Your task to perform on an android device: turn on the 12-hour format for clock Image 0: 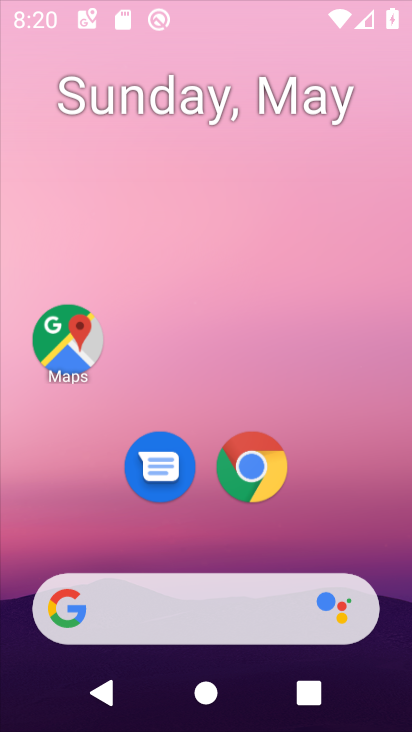
Step 0: click (327, 135)
Your task to perform on an android device: turn on the 12-hour format for clock Image 1: 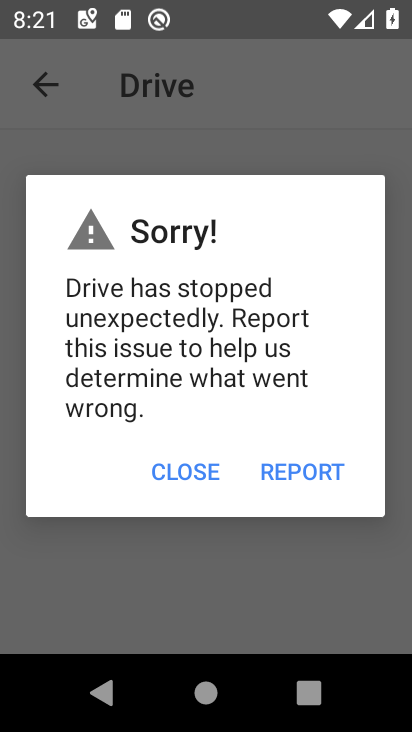
Step 1: click (213, 476)
Your task to perform on an android device: turn on the 12-hour format for clock Image 2: 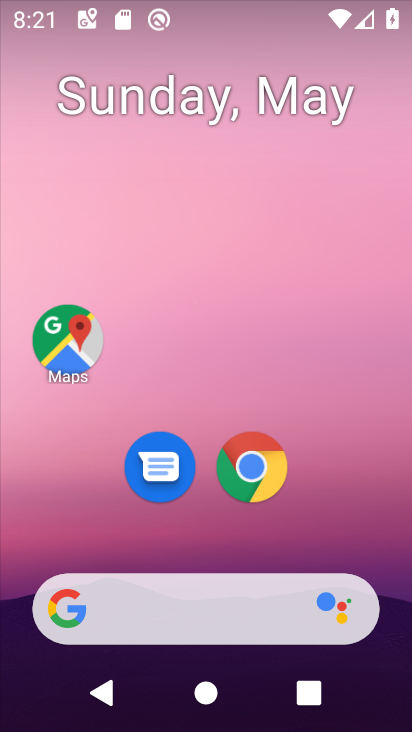
Step 2: drag from (346, 499) to (336, 73)
Your task to perform on an android device: turn on the 12-hour format for clock Image 3: 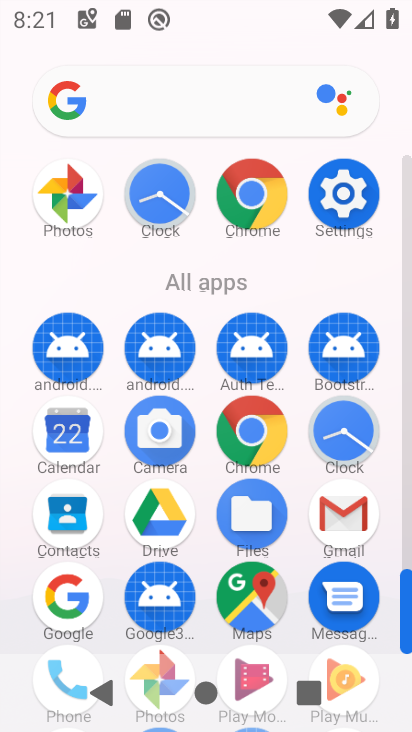
Step 3: click (331, 437)
Your task to perform on an android device: turn on the 12-hour format for clock Image 4: 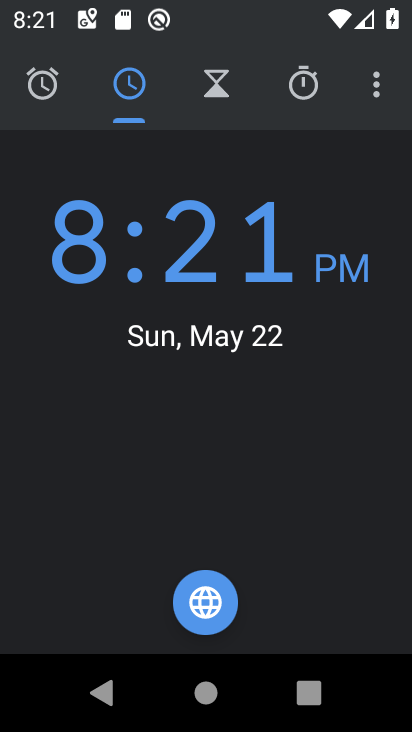
Step 4: drag from (379, 93) to (233, 163)
Your task to perform on an android device: turn on the 12-hour format for clock Image 5: 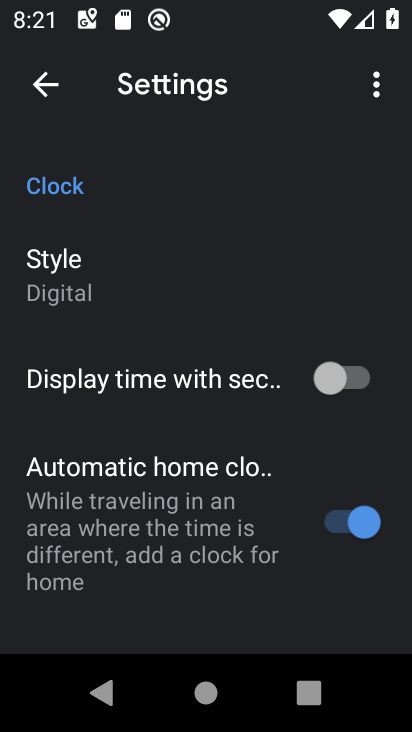
Step 5: drag from (232, 583) to (272, 225)
Your task to perform on an android device: turn on the 12-hour format for clock Image 6: 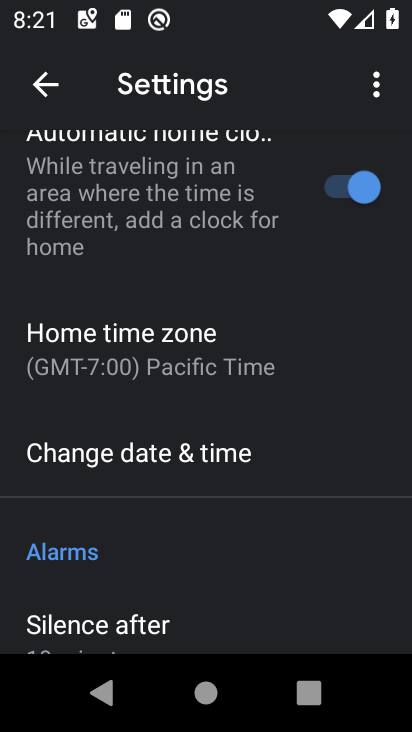
Step 6: click (237, 469)
Your task to perform on an android device: turn on the 12-hour format for clock Image 7: 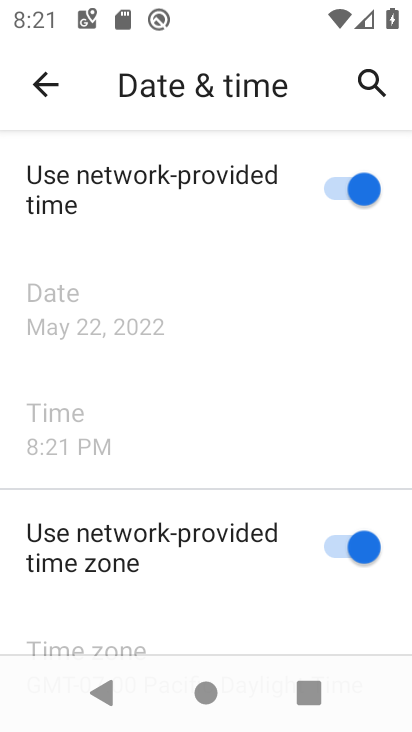
Step 7: task complete